Your task to perform on an android device: find photos in the google photos app Image 0: 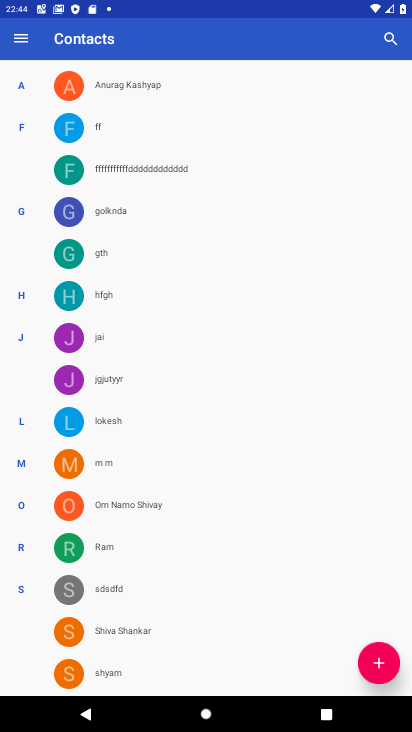
Step 0: press home button
Your task to perform on an android device: find photos in the google photos app Image 1: 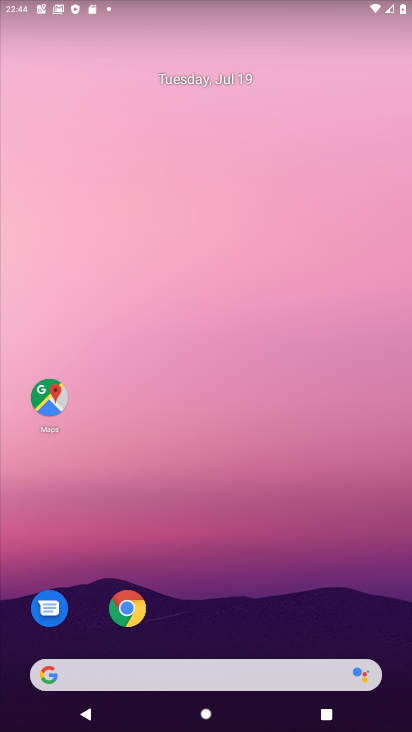
Step 1: drag from (313, 636) to (307, 111)
Your task to perform on an android device: find photos in the google photos app Image 2: 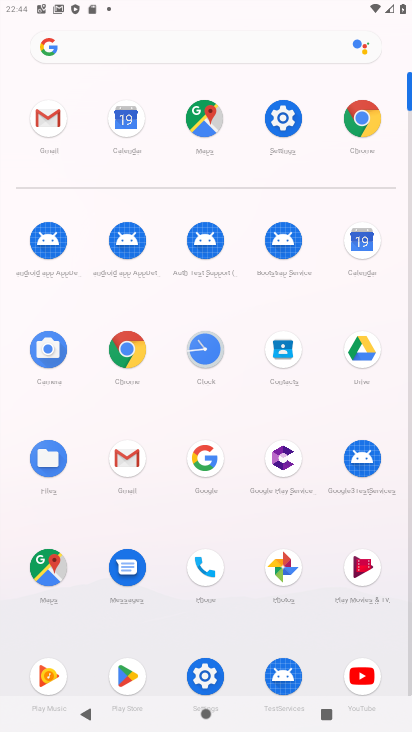
Step 2: click (288, 568)
Your task to perform on an android device: find photos in the google photos app Image 3: 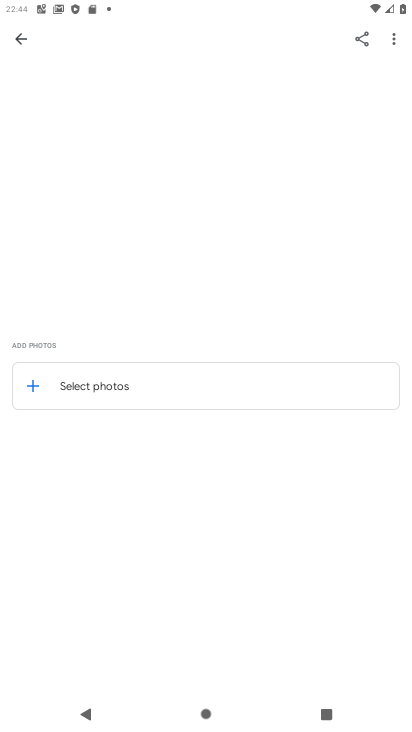
Step 3: click (20, 39)
Your task to perform on an android device: find photos in the google photos app Image 4: 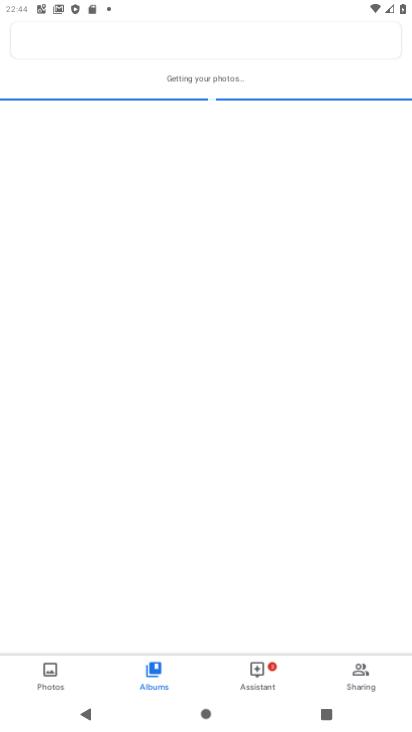
Step 4: click (18, 34)
Your task to perform on an android device: find photos in the google photos app Image 5: 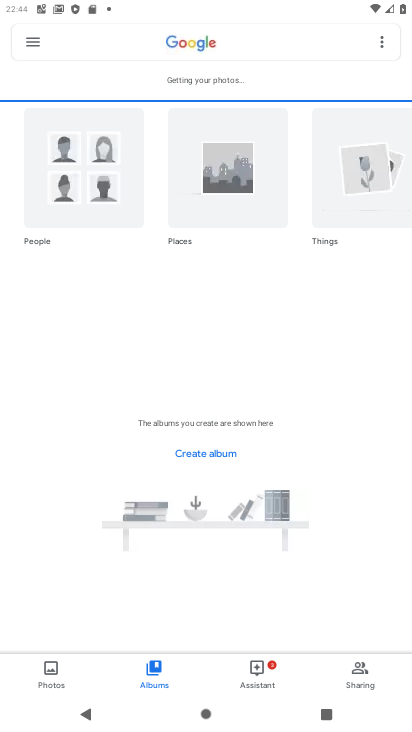
Step 5: click (78, 663)
Your task to perform on an android device: find photos in the google photos app Image 6: 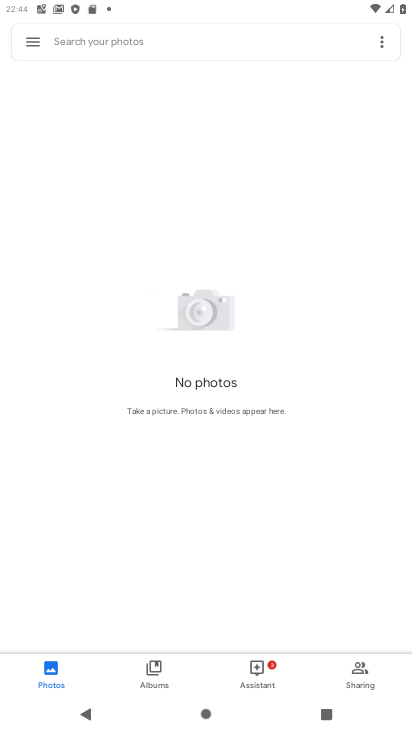
Step 6: task complete